Your task to perform on an android device: Turn off the flashlight Image 0: 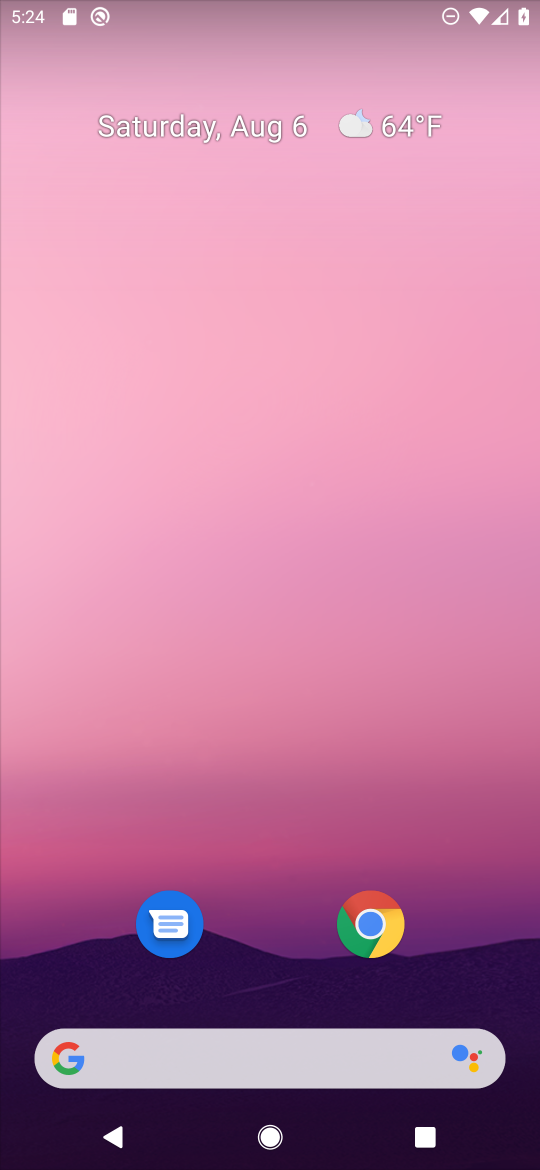
Step 0: drag from (291, 914) to (234, 16)
Your task to perform on an android device: Turn off the flashlight Image 1: 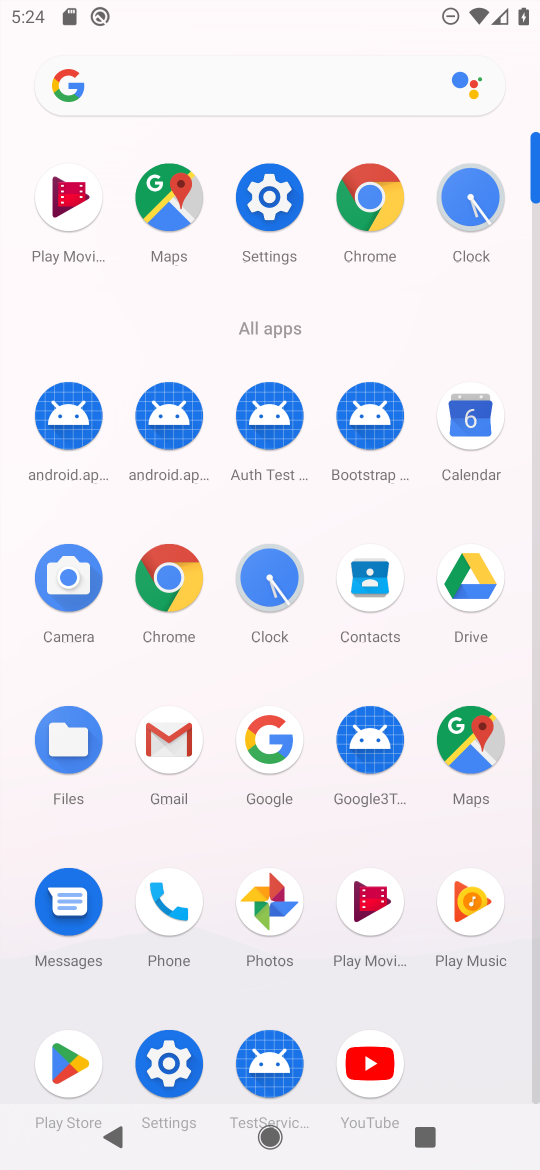
Step 1: click (269, 196)
Your task to perform on an android device: Turn off the flashlight Image 2: 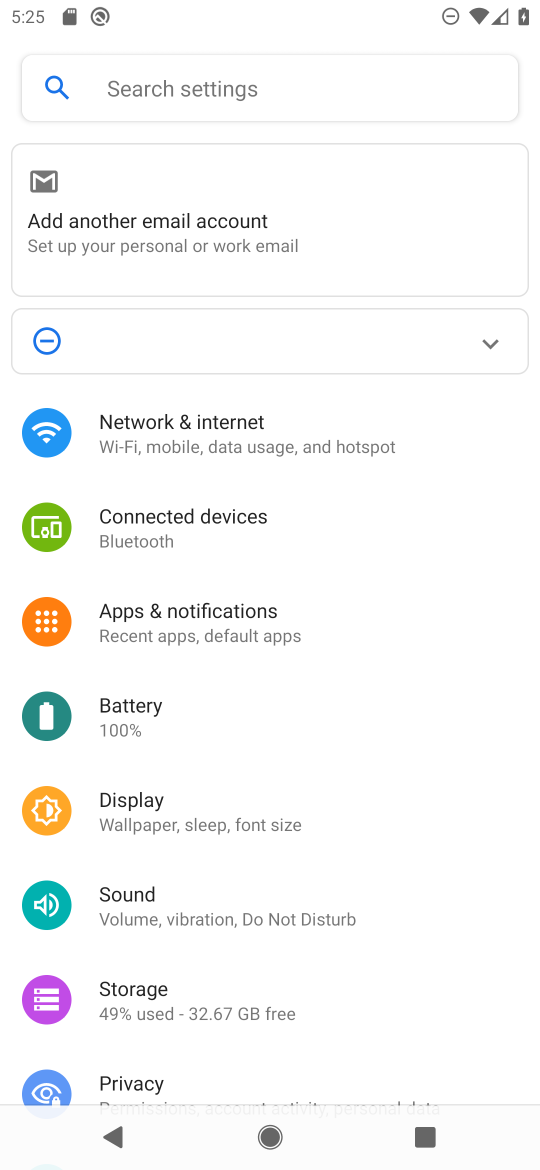
Step 2: click (156, 796)
Your task to perform on an android device: Turn off the flashlight Image 3: 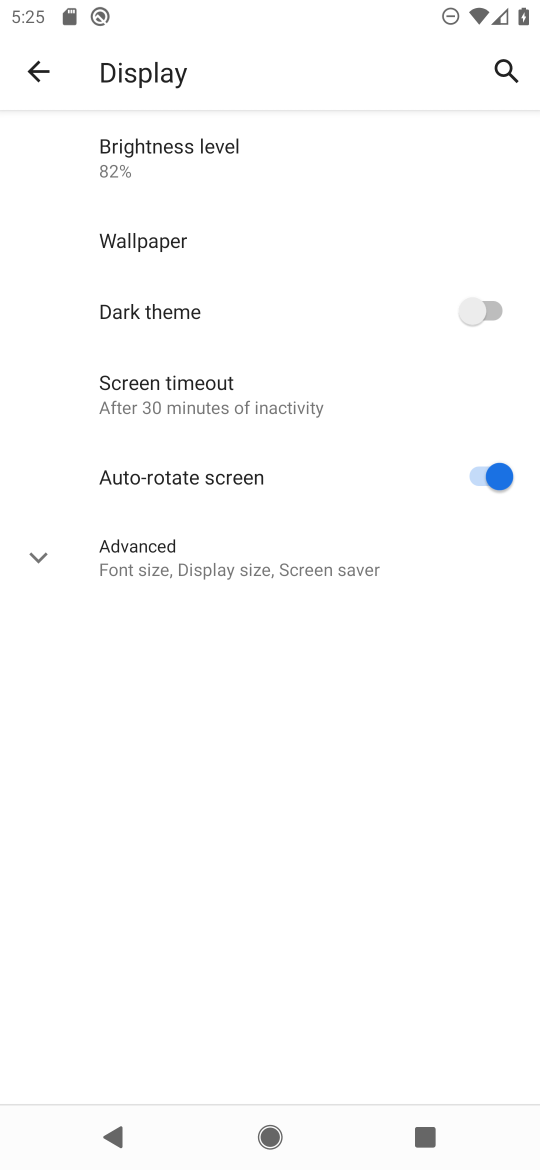
Step 3: task complete